Your task to perform on an android device: Go to accessibility settings Image 0: 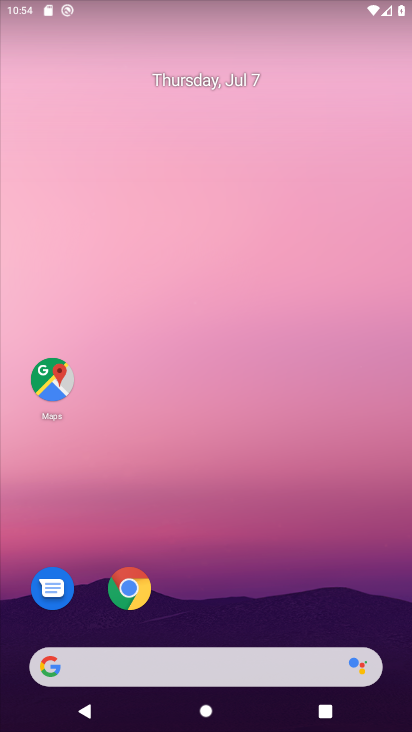
Step 0: drag from (239, 665) to (322, 176)
Your task to perform on an android device: Go to accessibility settings Image 1: 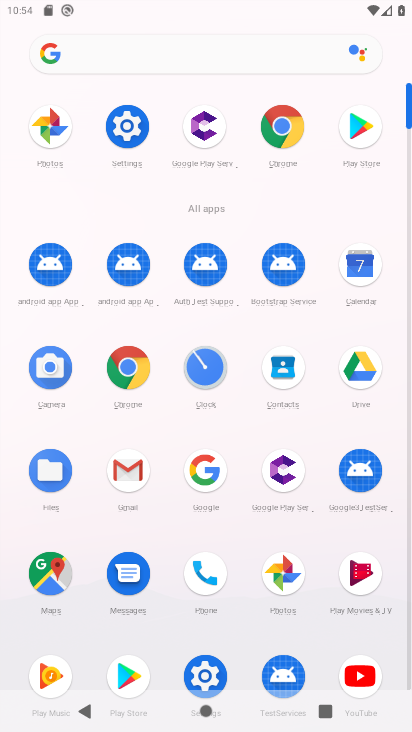
Step 1: click (124, 126)
Your task to perform on an android device: Go to accessibility settings Image 2: 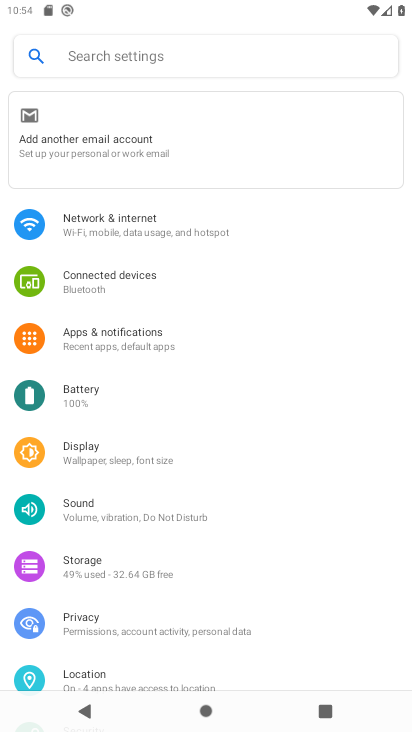
Step 2: drag from (258, 595) to (309, 320)
Your task to perform on an android device: Go to accessibility settings Image 3: 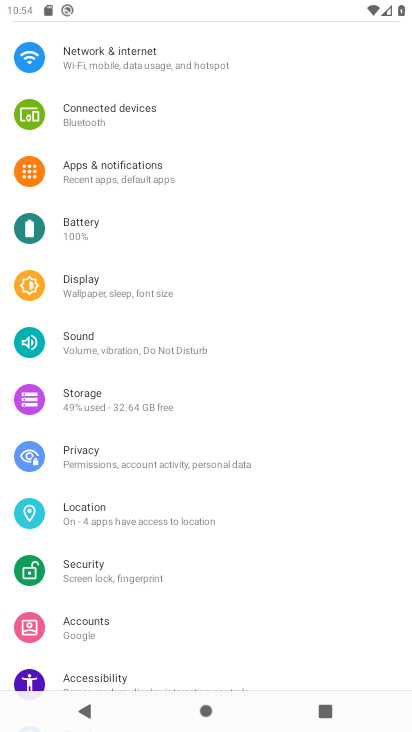
Step 3: click (124, 680)
Your task to perform on an android device: Go to accessibility settings Image 4: 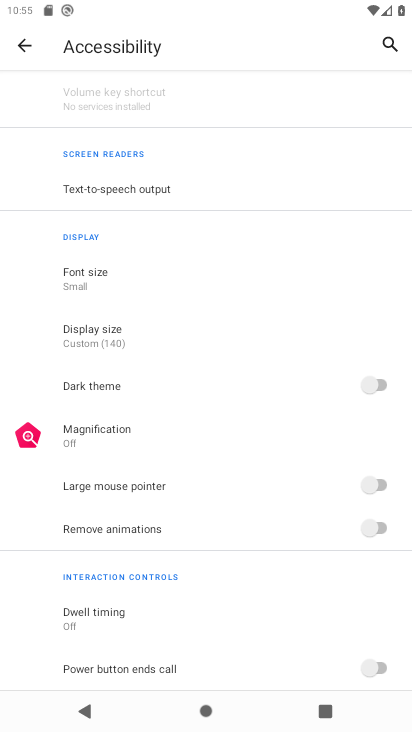
Step 4: task complete